Your task to perform on an android device: Search for seafood restaurants on Google Maps Image 0: 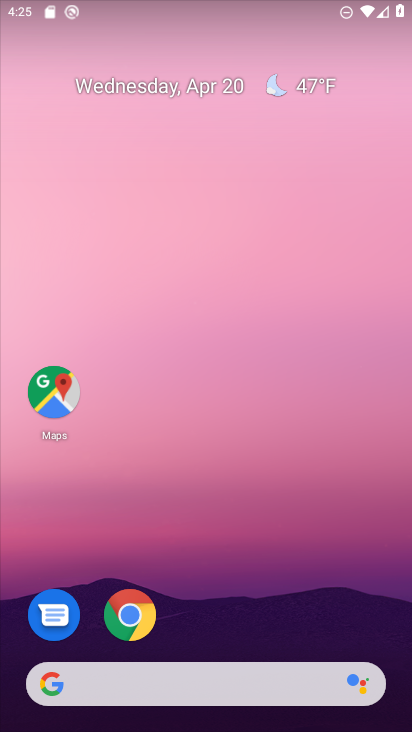
Step 0: click (63, 397)
Your task to perform on an android device: Search for seafood restaurants on Google Maps Image 1: 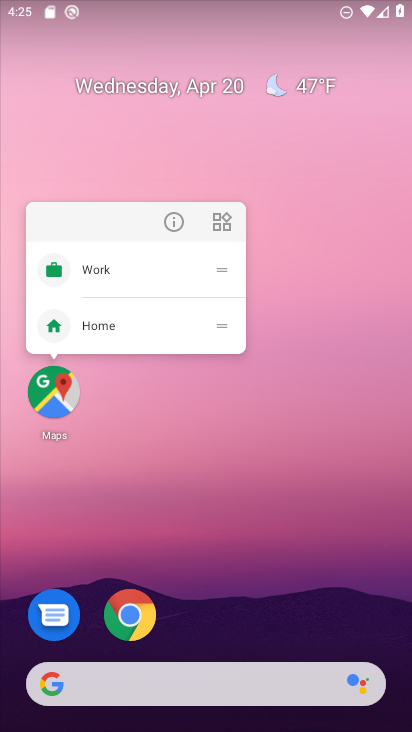
Step 1: click (51, 383)
Your task to perform on an android device: Search for seafood restaurants on Google Maps Image 2: 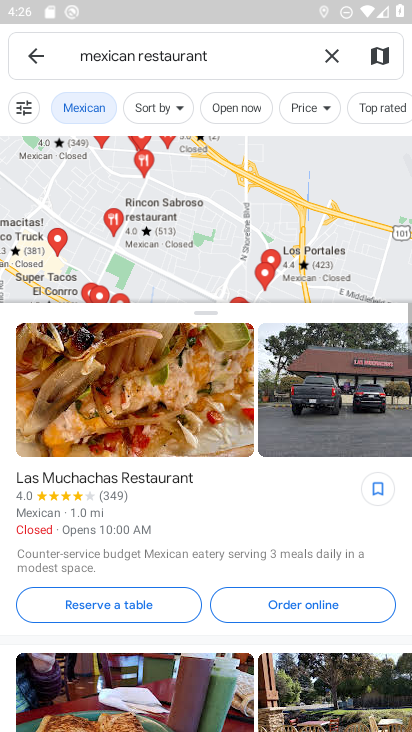
Step 2: click (325, 54)
Your task to perform on an android device: Search for seafood restaurants on Google Maps Image 3: 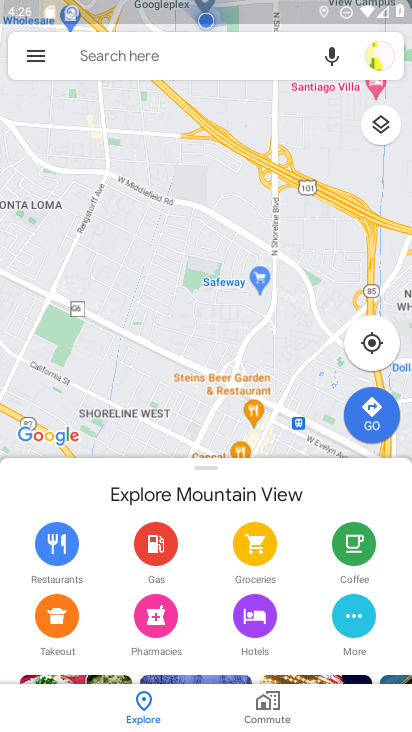
Step 3: type "seafood restaurants"
Your task to perform on an android device: Search for seafood restaurants on Google Maps Image 4: 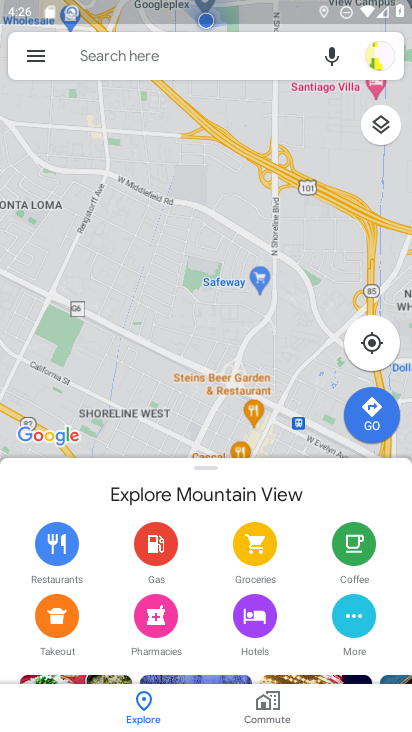
Step 4: type "seafood restaurants"
Your task to perform on an android device: Search for seafood restaurants on Google Maps Image 5: 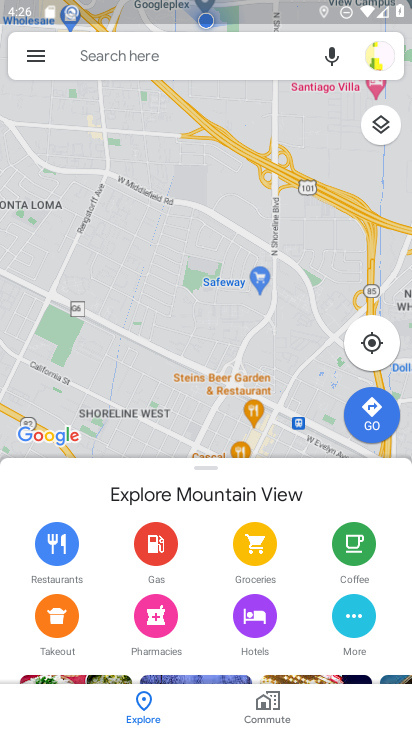
Step 5: click (150, 49)
Your task to perform on an android device: Search for seafood restaurants on Google Maps Image 6: 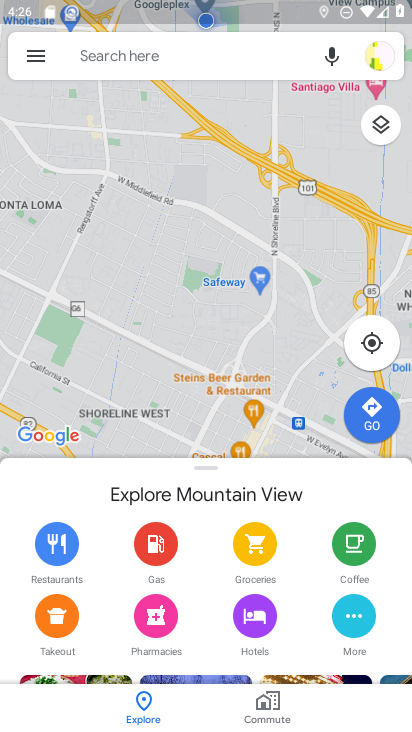
Step 6: click (150, 49)
Your task to perform on an android device: Search for seafood restaurants on Google Maps Image 7: 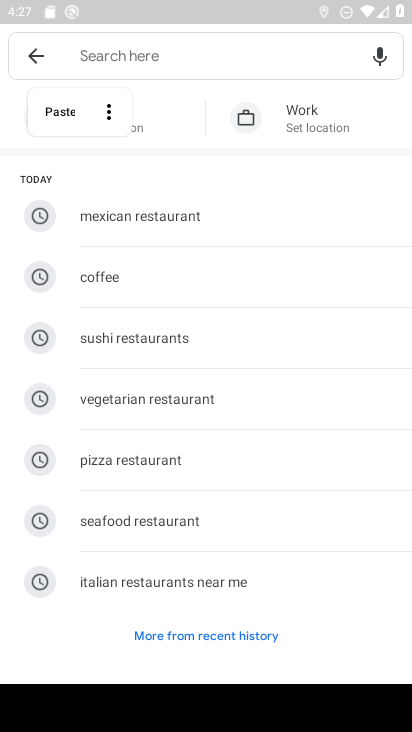
Step 7: type "seafood restaurants"
Your task to perform on an android device: Search for seafood restaurants on Google Maps Image 8: 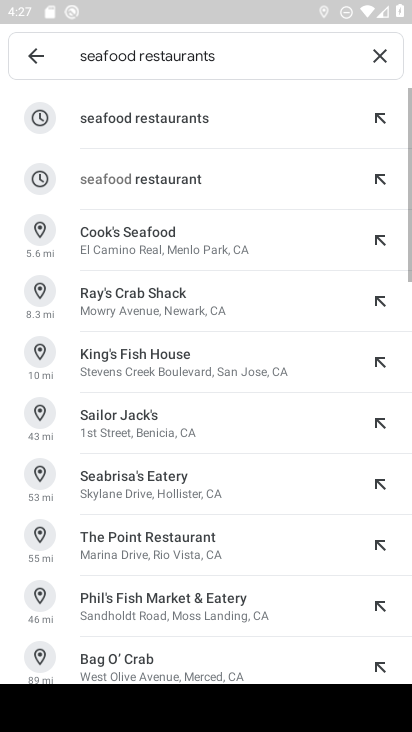
Step 8: click (169, 119)
Your task to perform on an android device: Search for seafood restaurants on Google Maps Image 9: 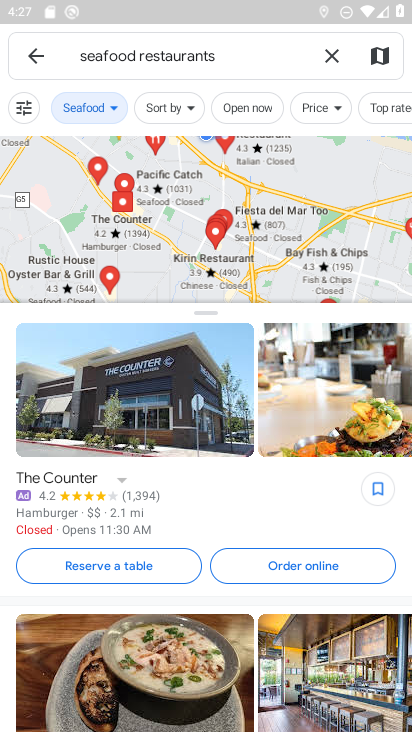
Step 9: task complete